Your task to perform on an android device: Search for seafood restaurants on Google Maps Image 0: 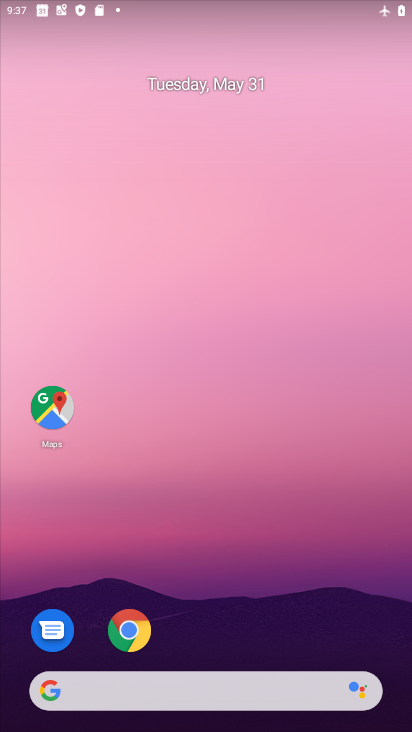
Step 0: drag from (208, 610) to (261, 226)
Your task to perform on an android device: Search for seafood restaurants on Google Maps Image 1: 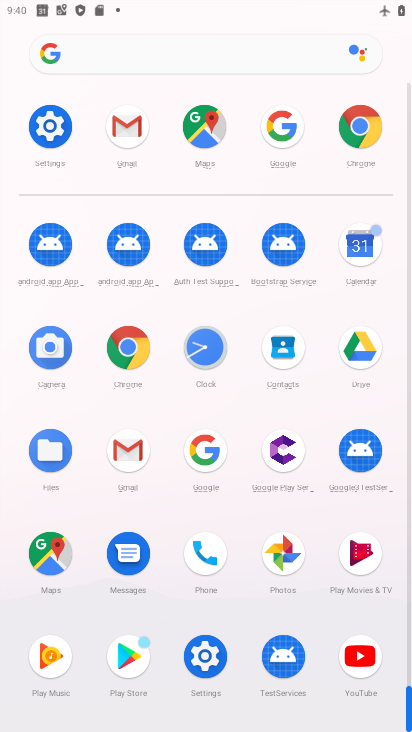
Step 1: click (53, 547)
Your task to perform on an android device: Search for seafood restaurants on Google Maps Image 2: 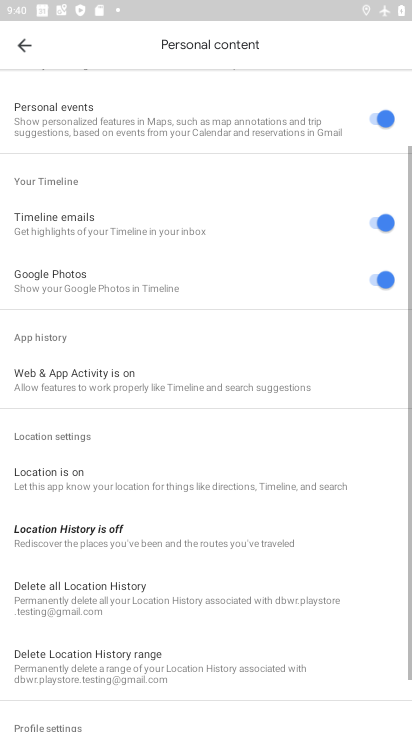
Step 2: click (26, 46)
Your task to perform on an android device: Search for seafood restaurants on Google Maps Image 3: 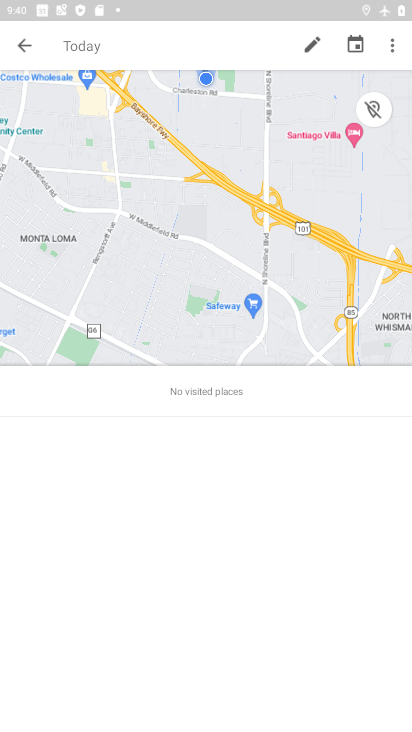
Step 3: click (35, 35)
Your task to perform on an android device: Search for seafood restaurants on Google Maps Image 4: 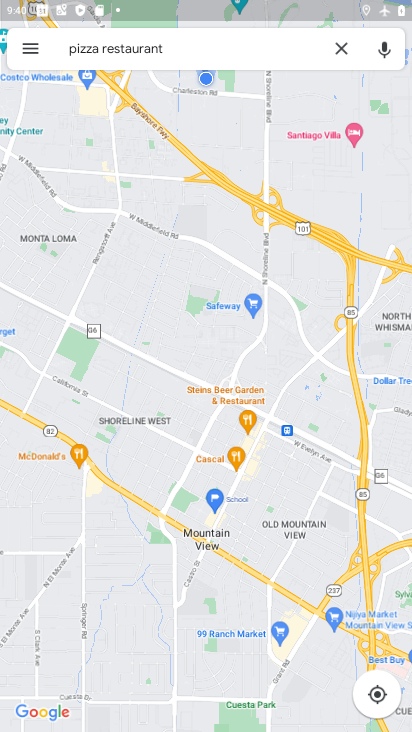
Step 4: click (336, 49)
Your task to perform on an android device: Search for seafood restaurants on Google Maps Image 5: 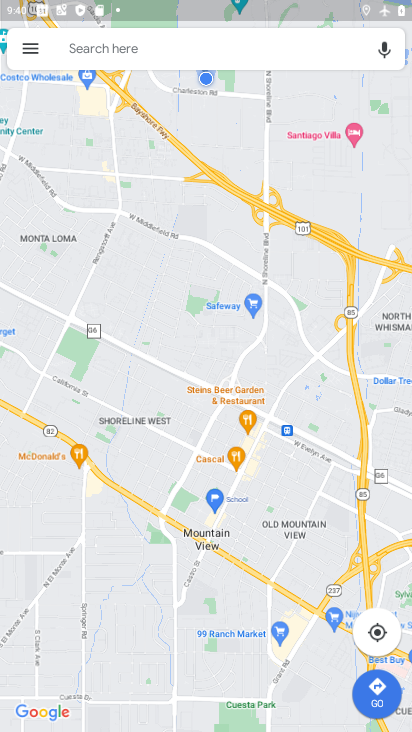
Step 5: click (223, 42)
Your task to perform on an android device: Search for seafood restaurants on Google Maps Image 6: 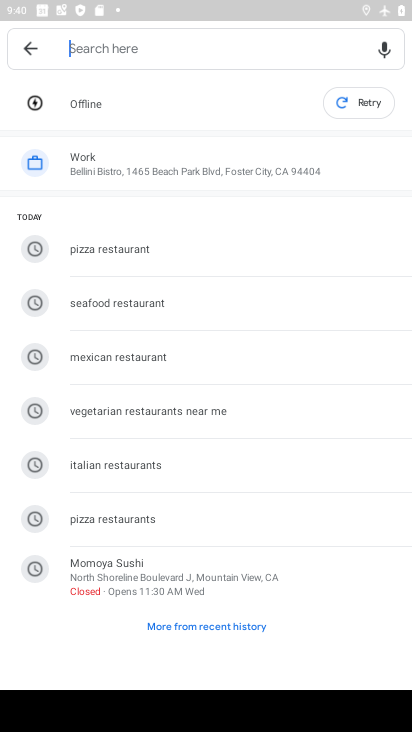
Step 6: click (194, 297)
Your task to perform on an android device: Search for seafood restaurants on Google Maps Image 7: 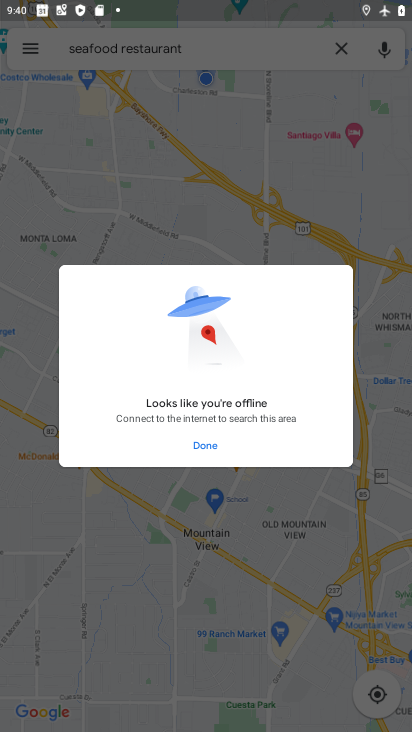
Step 7: task complete